Your task to perform on an android device: Add usb-b to the cart on costco, then select checkout. Image 0: 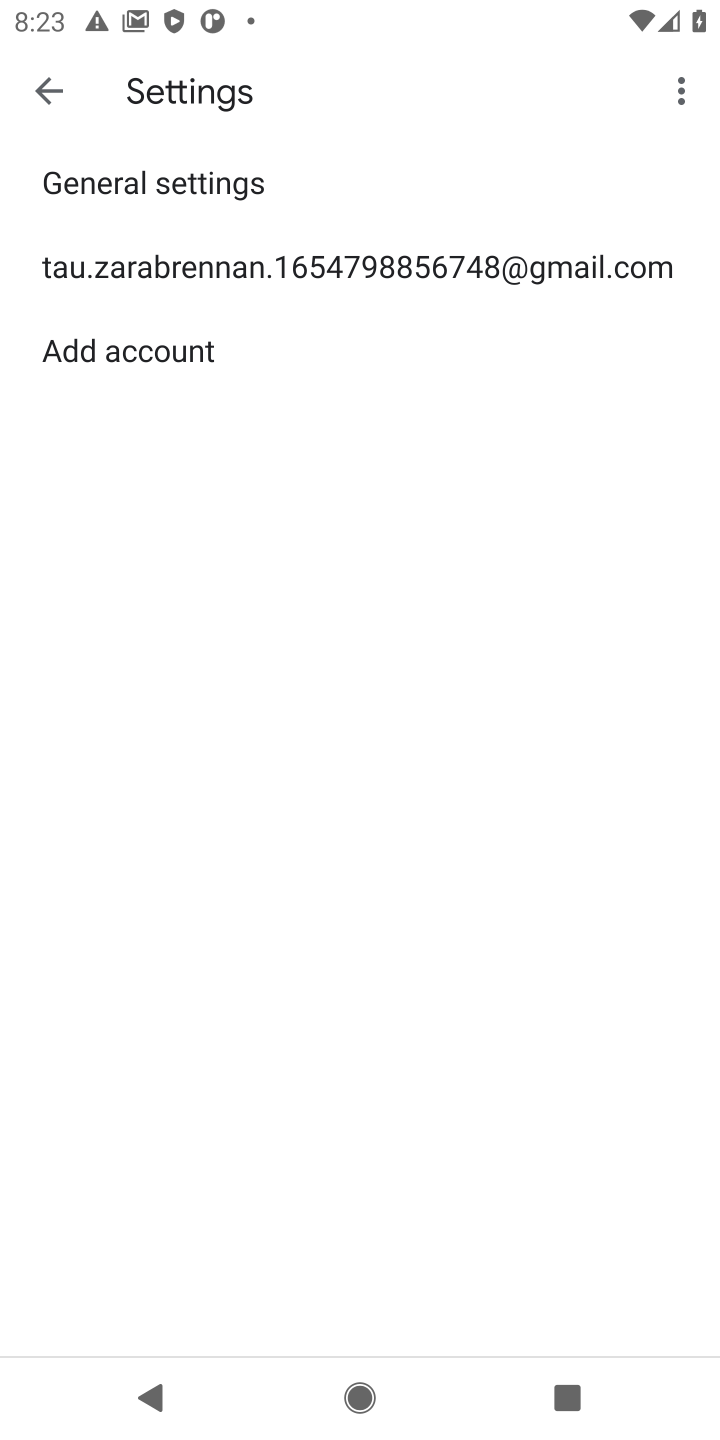
Step 0: press home button
Your task to perform on an android device: Add usb-b to the cart on costco, then select checkout. Image 1: 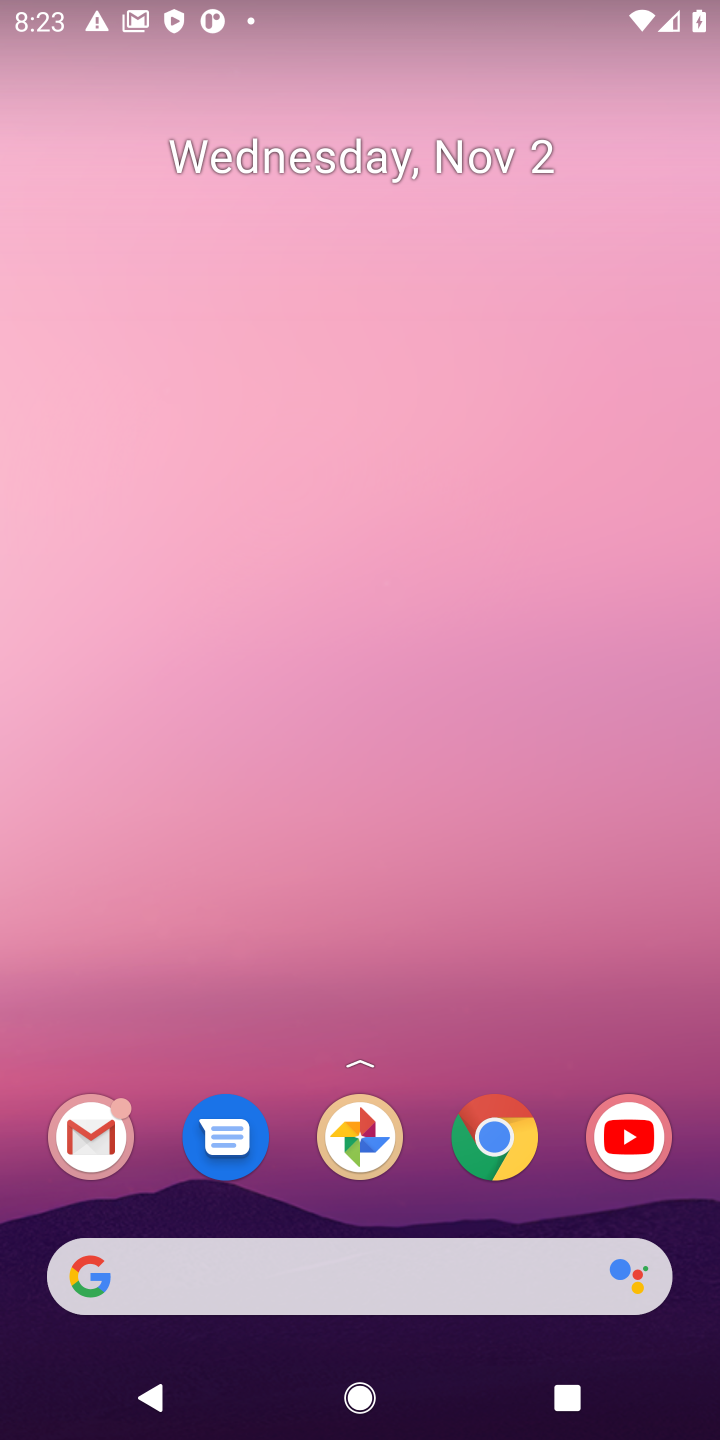
Step 1: click (494, 1140)
Your task to perform on an android device: Add usb-b to the cart on costco, then select checkout. Image 2: 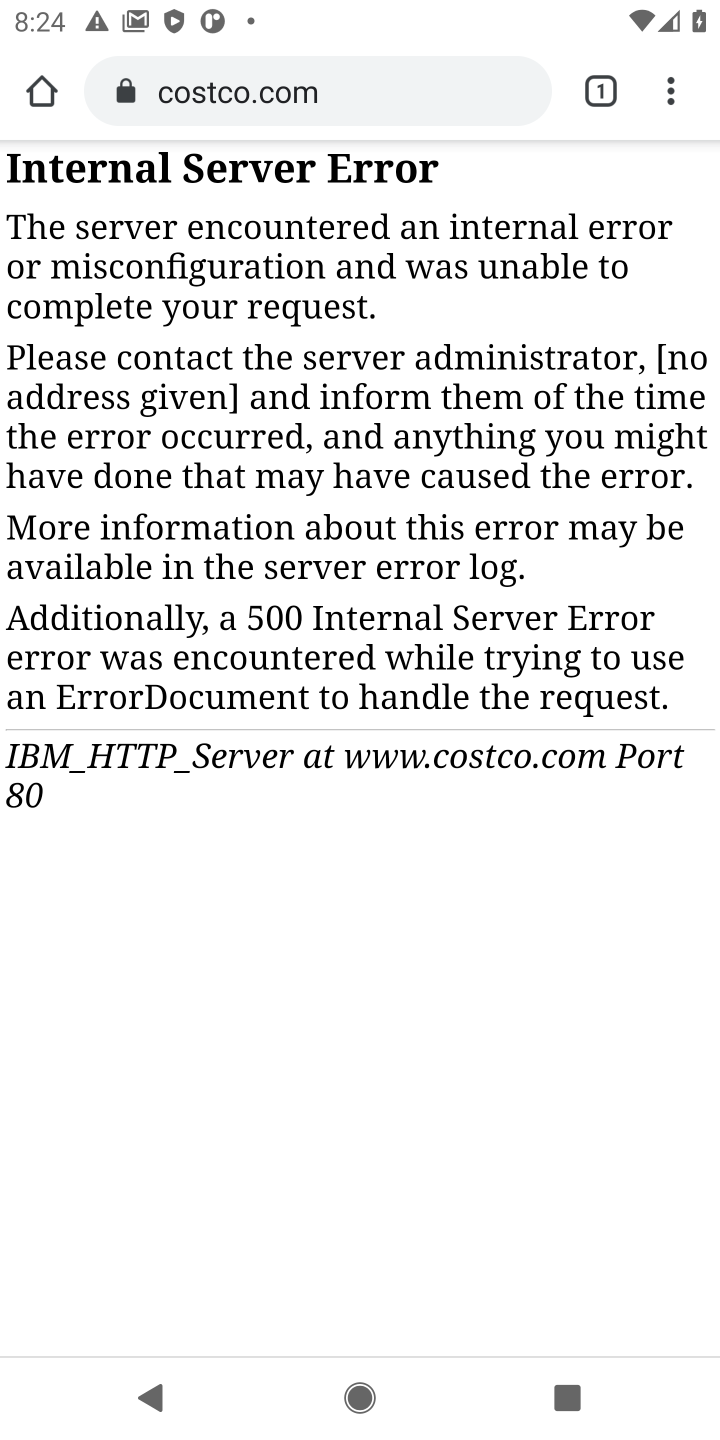
Step 2: task complete